Your task to perform on an android device: Open privacy settings Image 0: 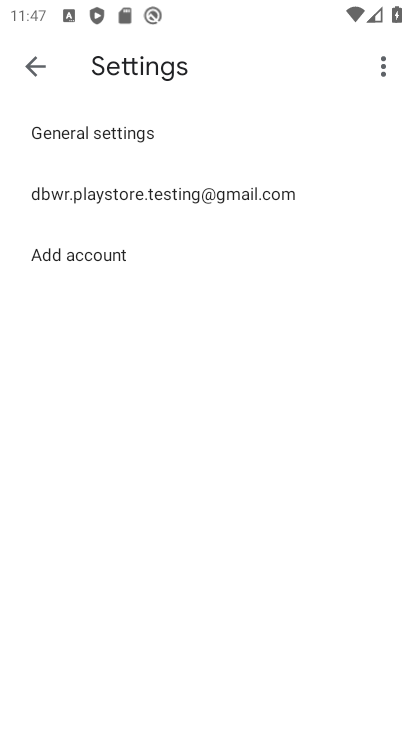
Step 0: press home button
Your task to perform on an android device: Open privacy settings Image 1: 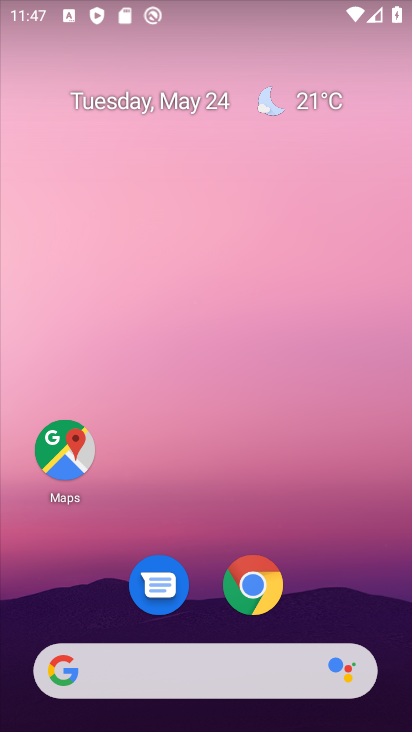
Step 1: drag from (210, 500) to (248, 18)
Your task to perform on an android device: Open privacy settings Image 2: 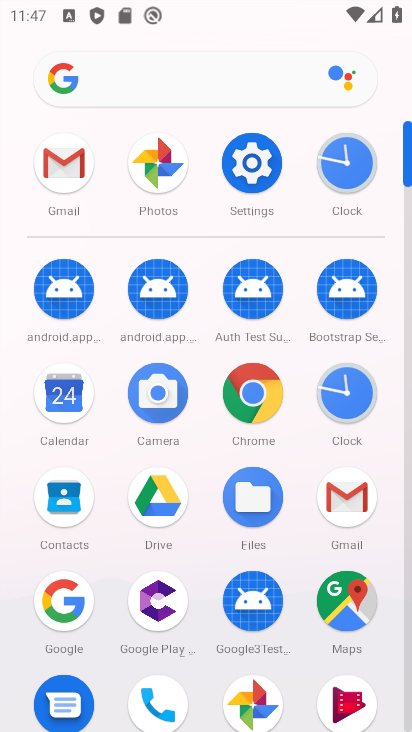
Step 2: click (243, 156)
Your task to perform on an android device: Open privacy settings Image 3: 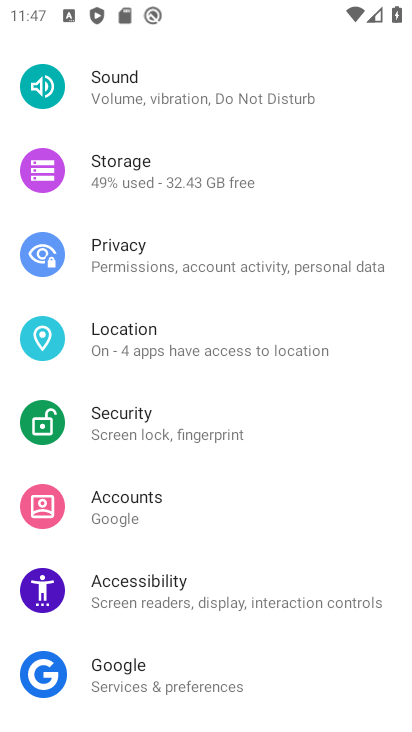
Step 3: click (224, 259)
Your task to perform on an android device: Open privacy settings Image 4: 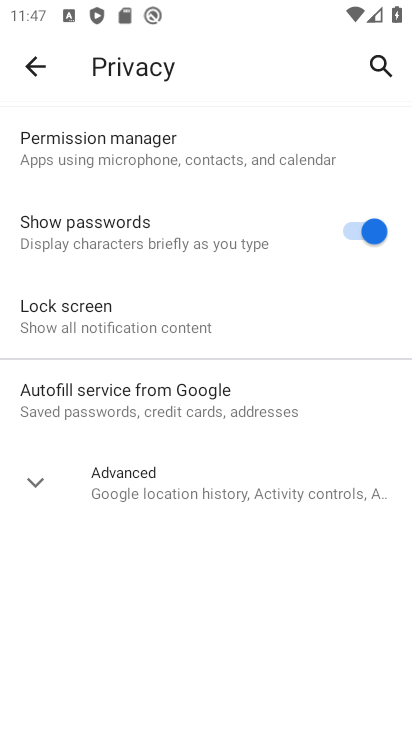
Step 4: task complete